Your task to perform on an android device: Search for the best rated phone case for the iPhone 8. Image 0: 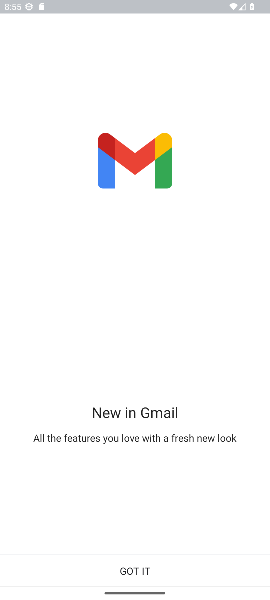
Step 0: click (131, 569)
Your task to perform on an android device: Search for the best rated phone case for the iPhone 8. Image 1: 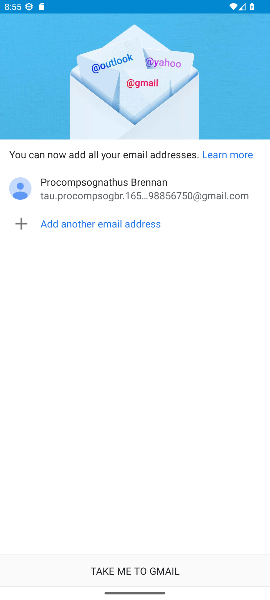
Step 1: click (131, 569)
Your task to perform on an android device: Search for the best rated phone case for the iPhone 8. Image 2: 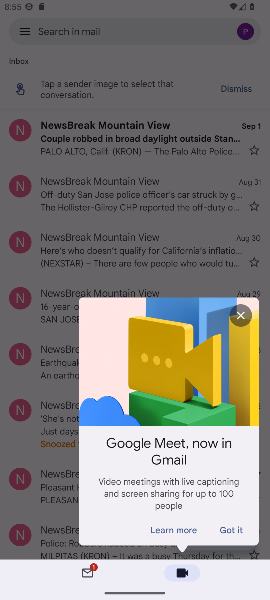
Step 2: click (238, 317)
Your task to perform on an android device: Search for the best rated phone case for the iPhone 8. Image 3: 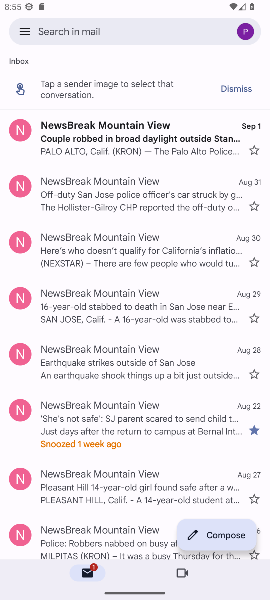
Step 3: click (238, 317)
Your task to perform on an android device: Search for the best rated phone case for the iPhone 8. Image 4: 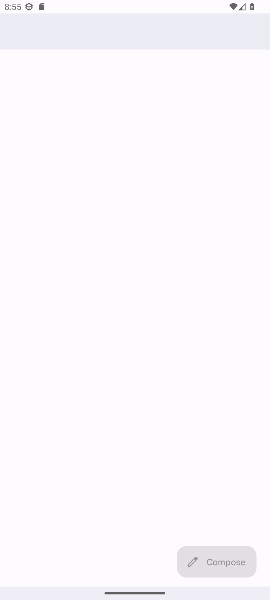
Step 4: click (238, 317)
Your task to perform on an android device: Search for the best rated phone case for the iPhone 8. Image 5: 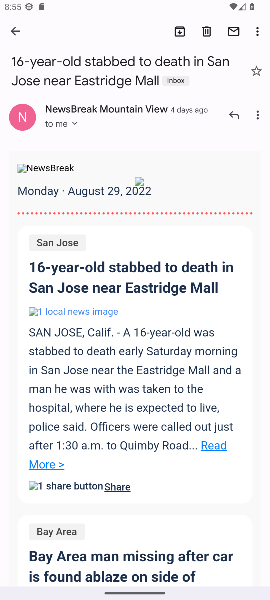
Step 5: press home button
Your task to perform on an android device: Search for the best rated phone case for the iPhone 8. Image 6: 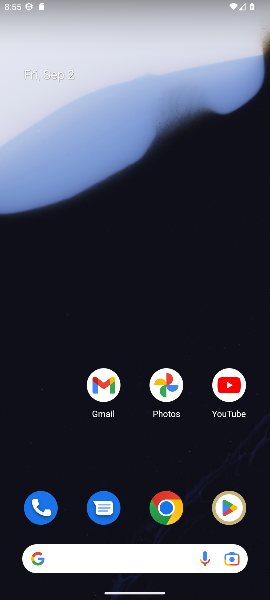
Step 6: click (172, 509)
Your task to perform on an android device: Search for the best rated phone case for the iPhone 8. Image 7: 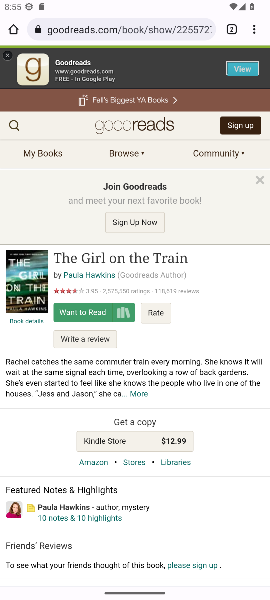
Step 7: click (164, 34)
Your task to perform on an android device: Search for the best rated phone case for the iPhone 8. Image 8: 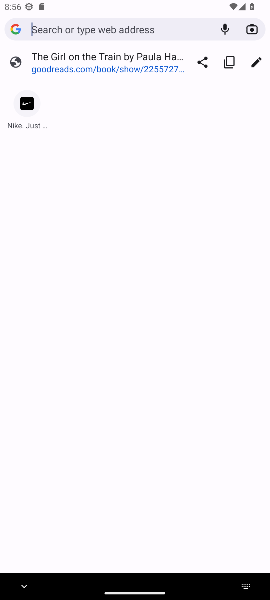
Step 8: click (131, 110)
Your task to perform on an android device: Search for the best rated phone case for the iPhone 8. Image 9: 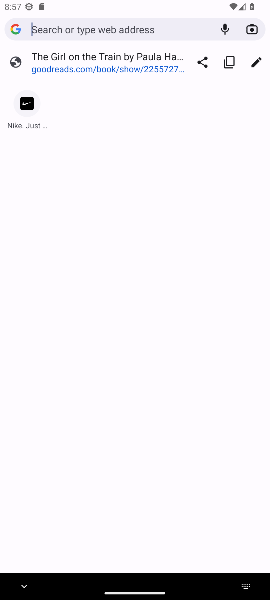
Step 9: type "best rated phone case for iphone "
Your task to perform on an android device: Search for the best rated phone case for the iPhone 8. Image 10: 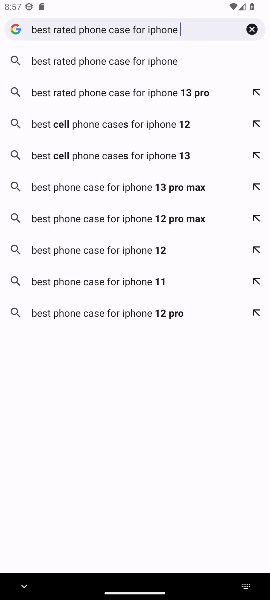
Step 10: type "8."
Your task to perform on an android device: Search for the best rated phone case for the iPhone 8. Image 11: 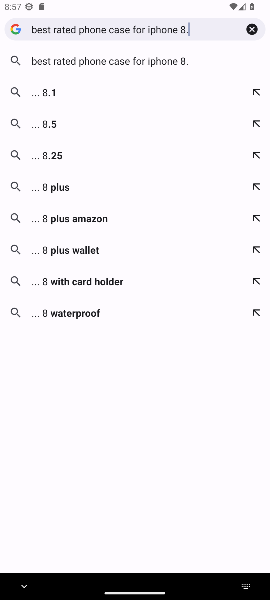
Step 11: click (92, 59)
Your task to perform on an android device: Search for the best rated phone case for the iPhone 8. Image 12: 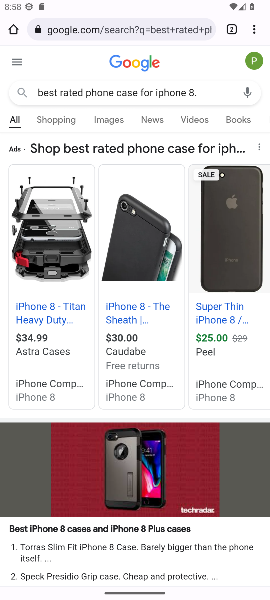
Step 12: task complete